Your task to perform on an android device: Open the calendar app, open the side menu, and click the "Day" option Image 0: 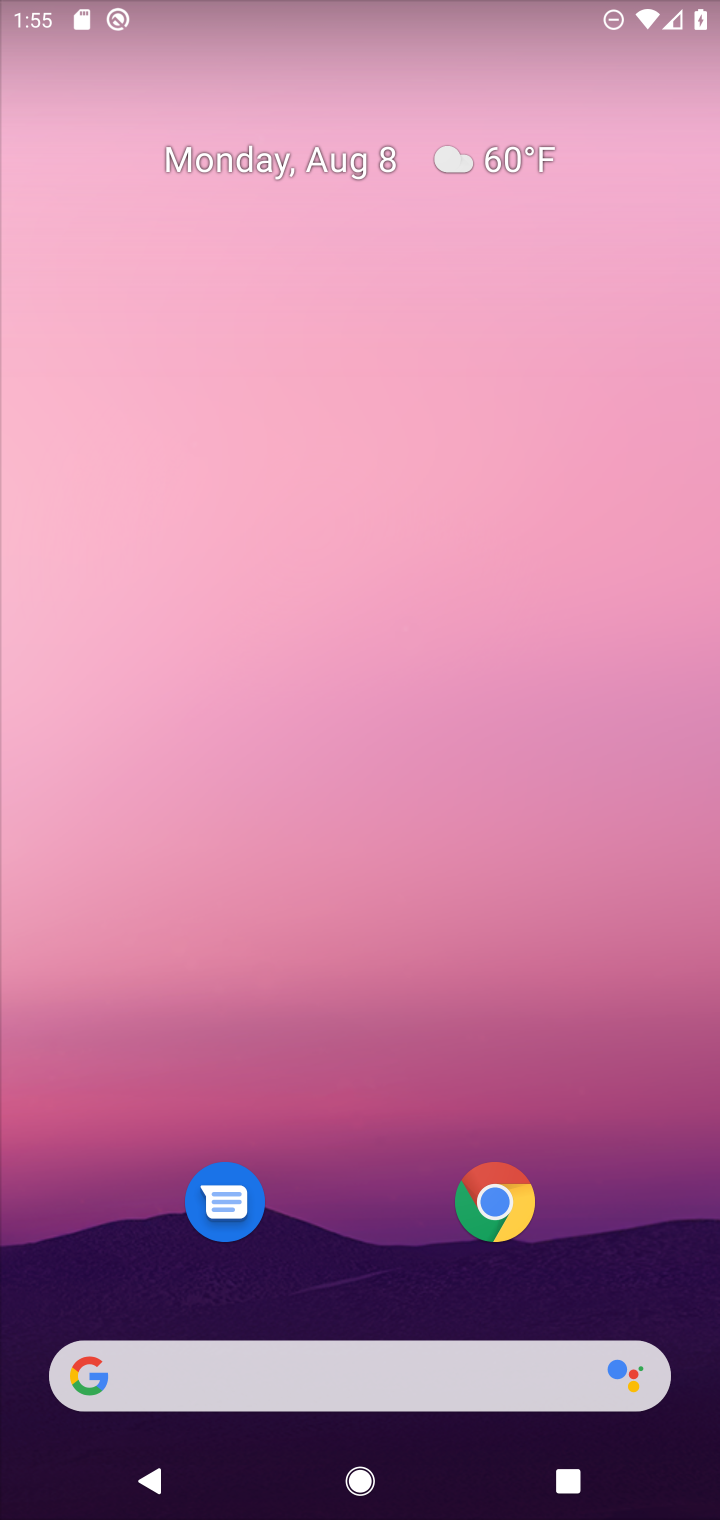
Step 0: press home button
Your task to perform on an android device: Open the calendar app, open the side menu, and click the "Day" option Image 1: 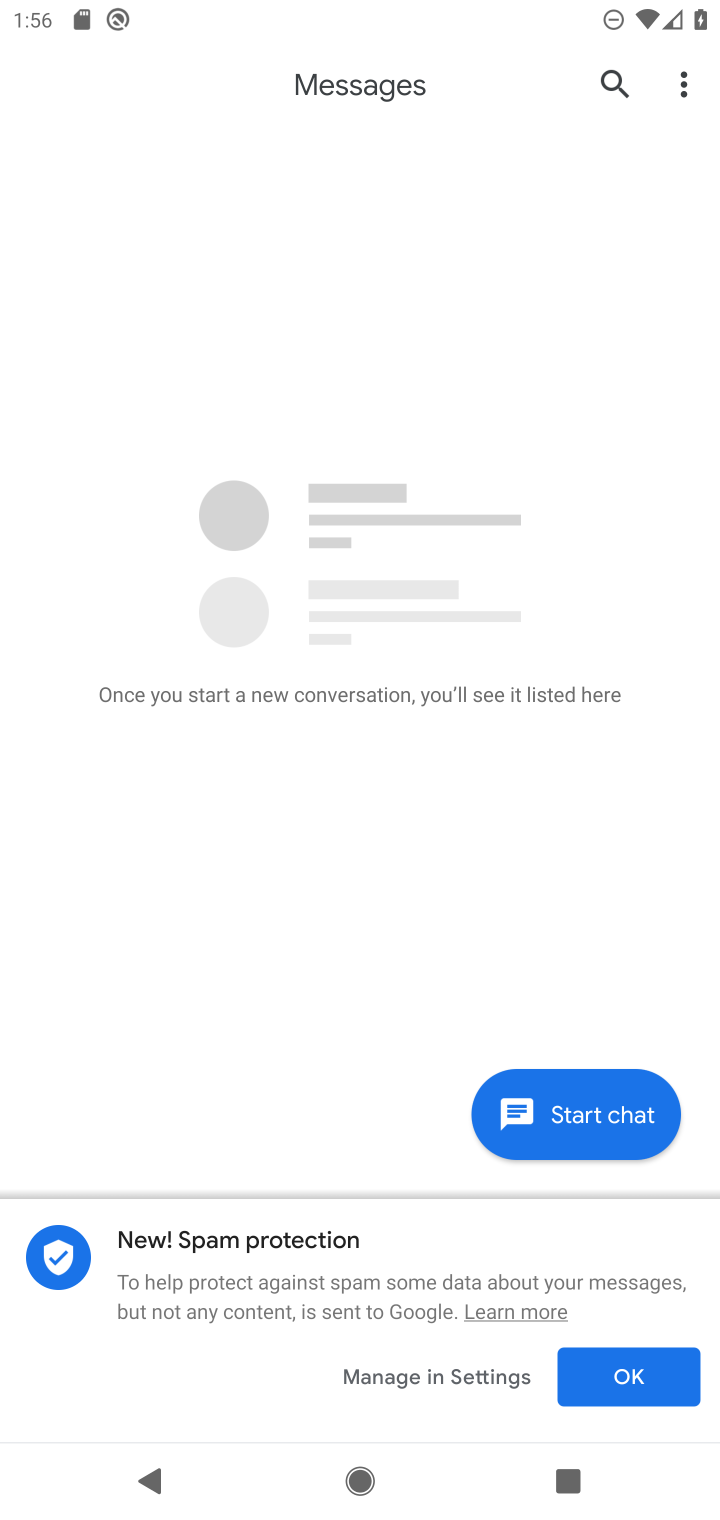
Step 1: drag from (427, 485) to (468, 218)
Your task to perform on an android device: Open the calendar app, open the side menu, and click the "Day" option Image 2: 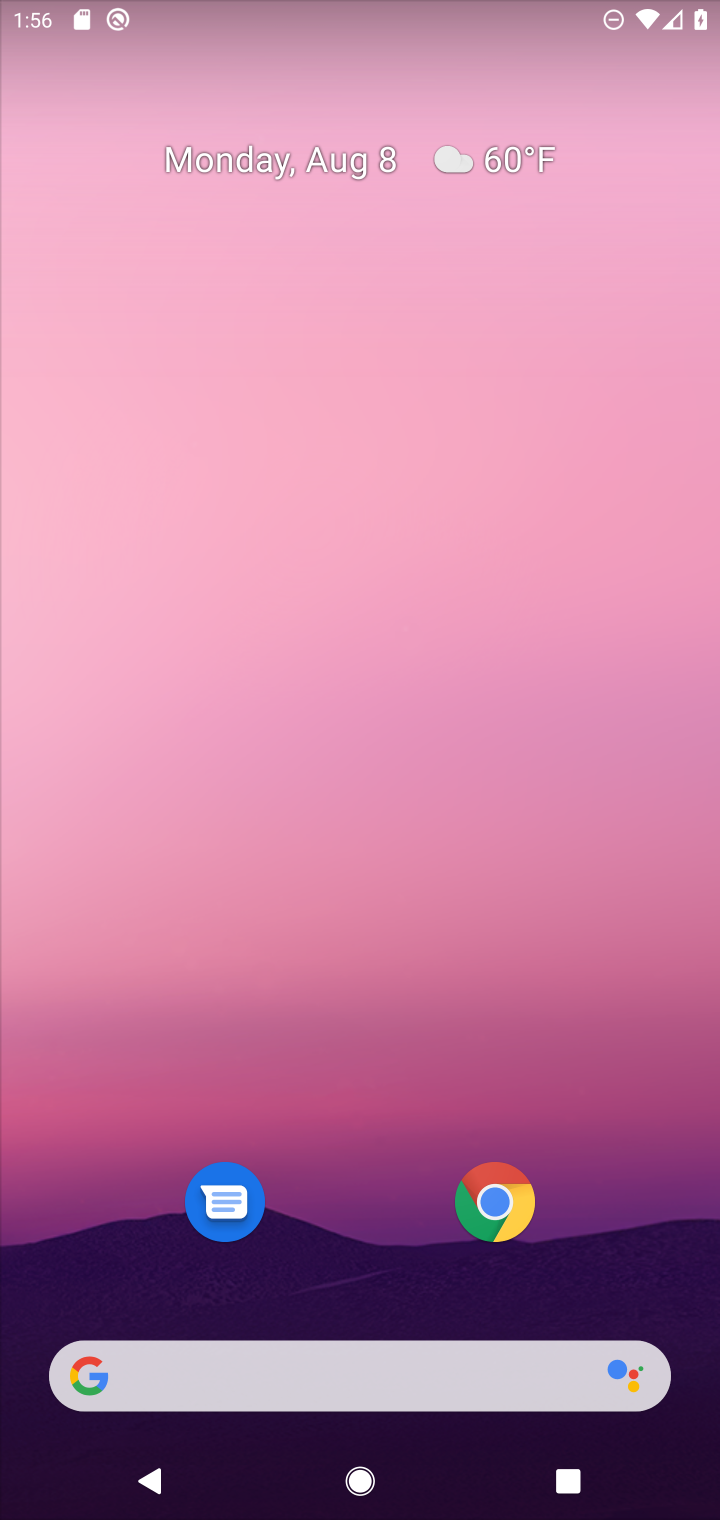
Step 2: drag from (592, 1267) to (654, 295)
Your task to perform on an android device: Open the calendar app, open the side menu, and click the "Day" option Image 3: 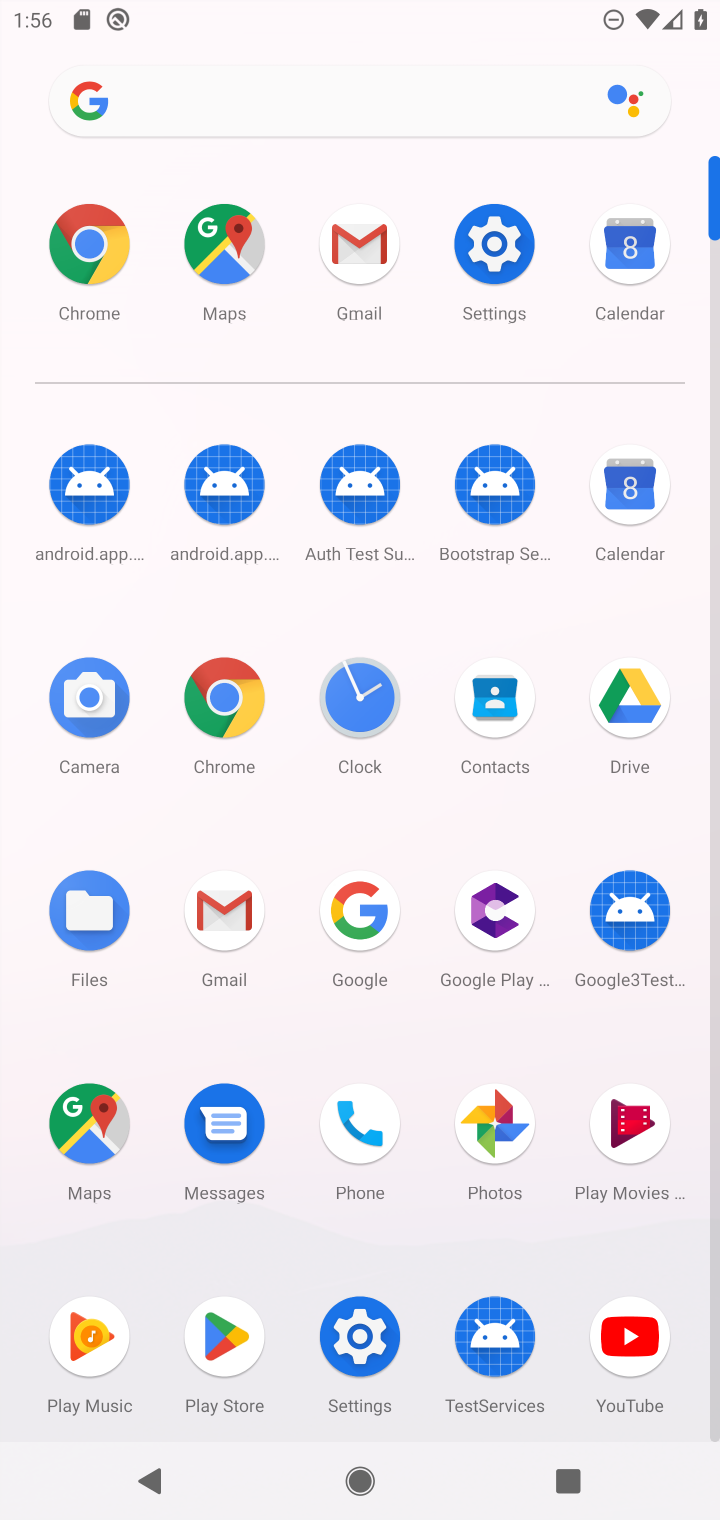
Step 3: click (633, 486)
Your task to perform on an android device: Open the calendar app, open the side menu, and click the "Day" option Image 4: 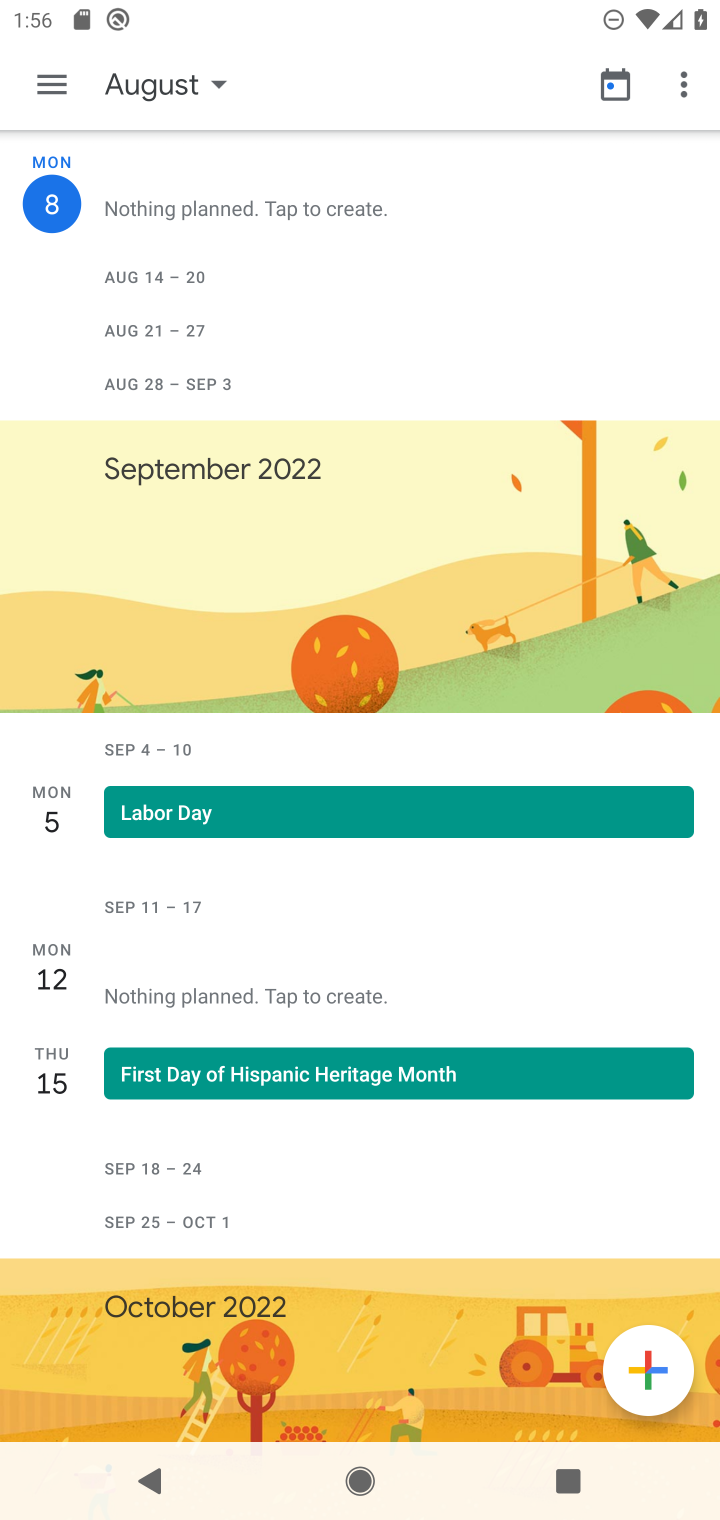
Step 4: click (44, 81)
Your task to perform on an android device: Open the calendar app, open the side menu, and click the "Day" option Image 5: 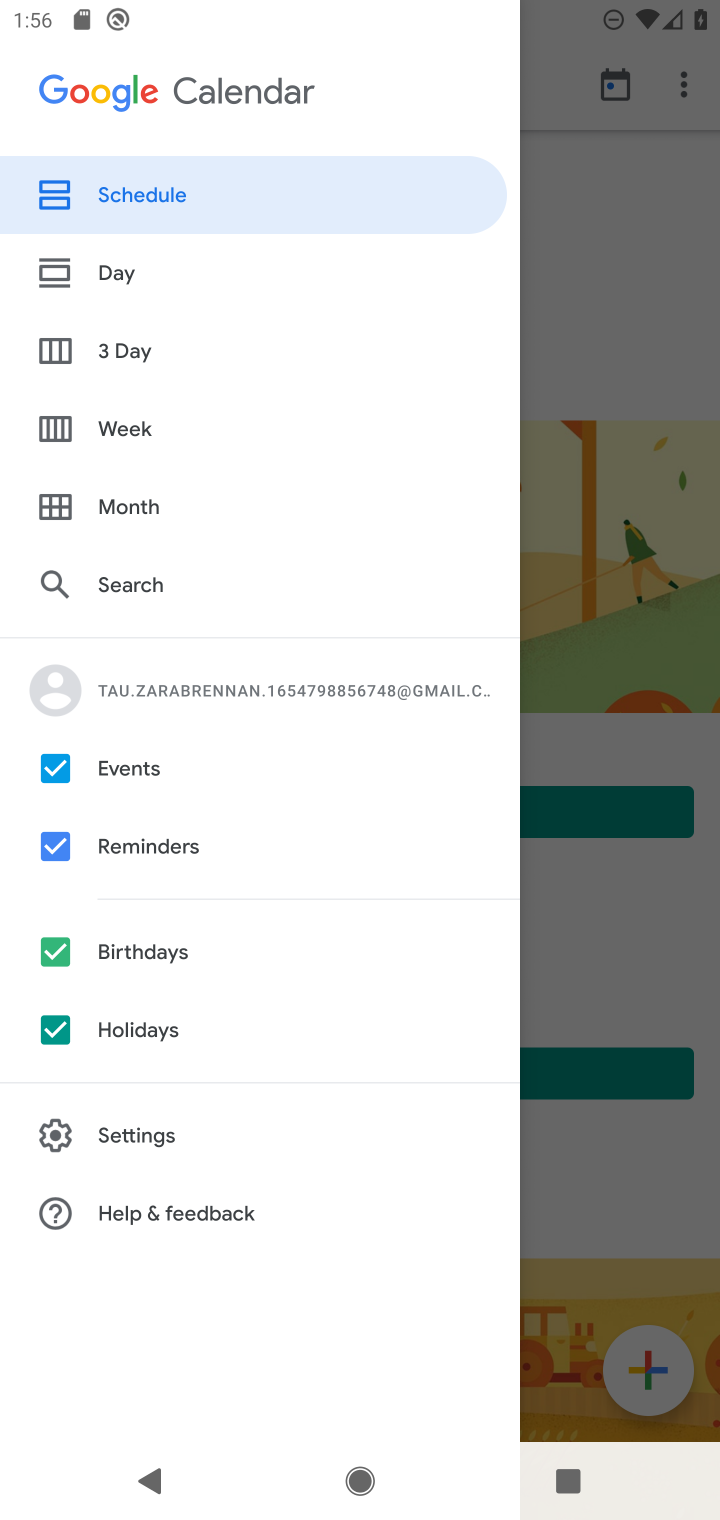
Step 5: click (177, 281)
Your task to perform on an android device: Open the calendar app, open the side menu, and click the "Day" option Image 6: 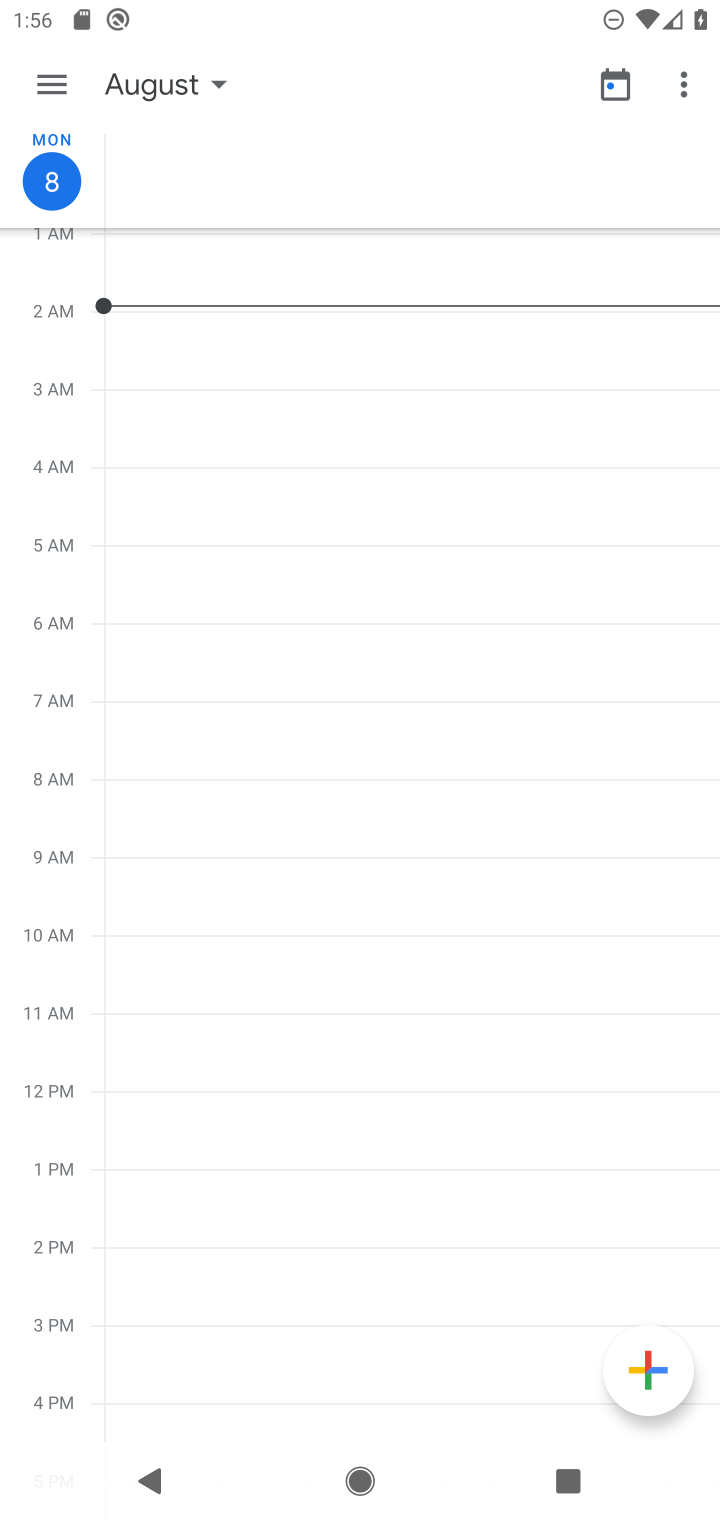
Step 6: task complete